Your task to perform on an android device: Open sound settings Image 0: 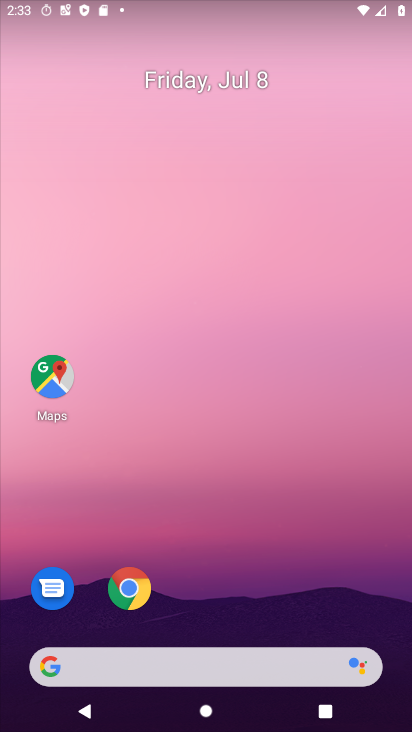
Step 0: press home button
Your task to perform on an android device: Open sound settings Image 1: 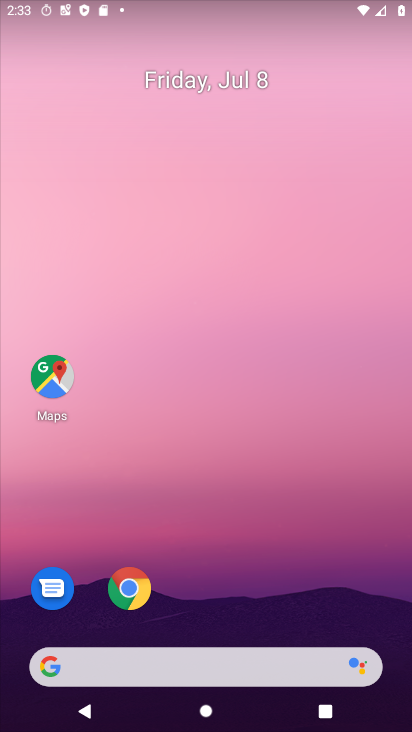
Step 1: drag from (236, 643) to (315, 197)
Your task to perform on an android device: Open sound settings Image 2: 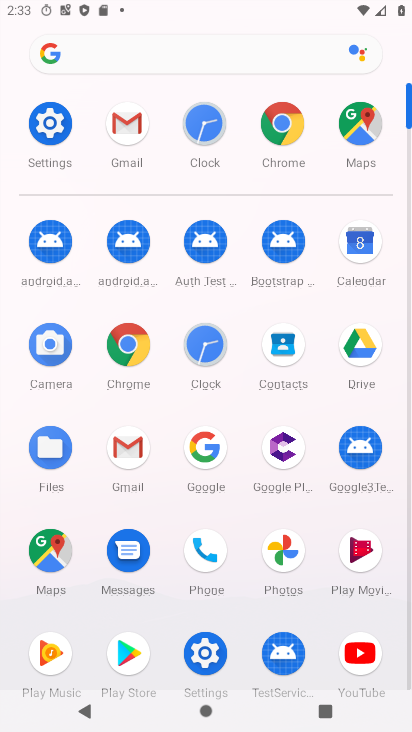
Step 2: click (212, 660)
Your task to perform on an android device: Open sound settings Image 3: 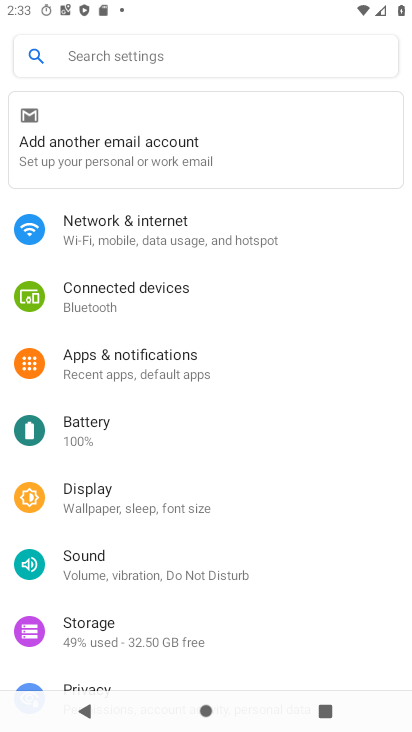
Step 3: click (78, 577)
Your task to perform on an android device: Open sound settings Image 4: 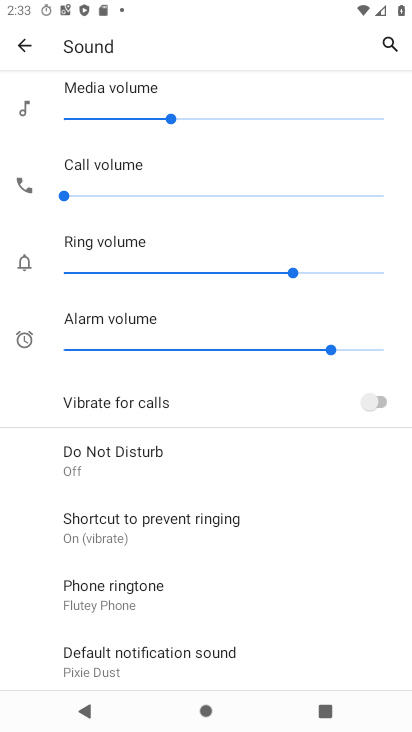
Step 4: task complete